Your task to perform on an android device: Go to Maps Image 0: 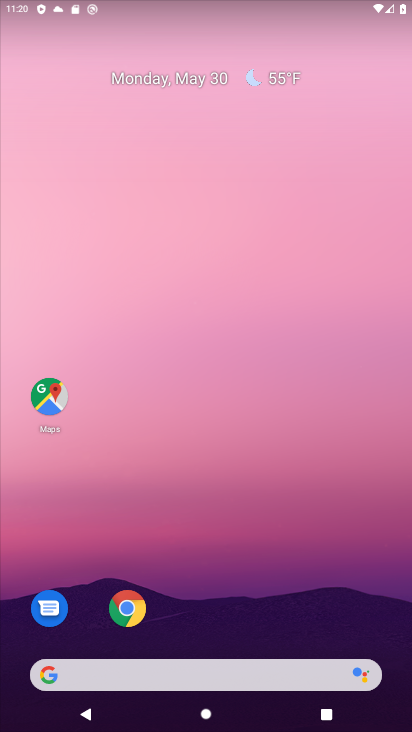
Step 0: click (45, 403)
Your task to perform on an android device: Go to Maps Image 1: 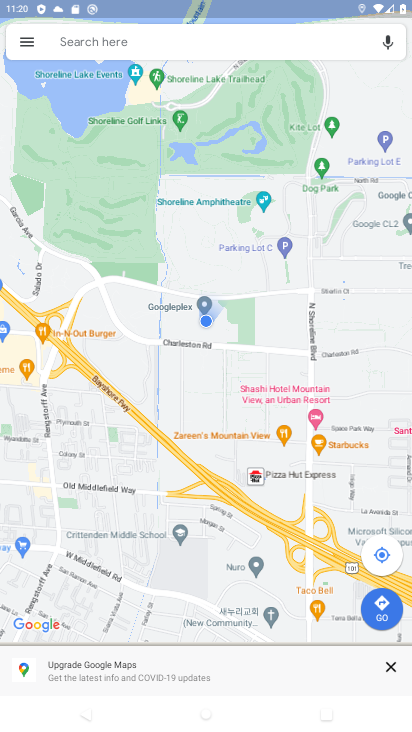
Step 1: task complete